Your task to perform on an android device: delete the emails in spam in the gmail app Image 0: 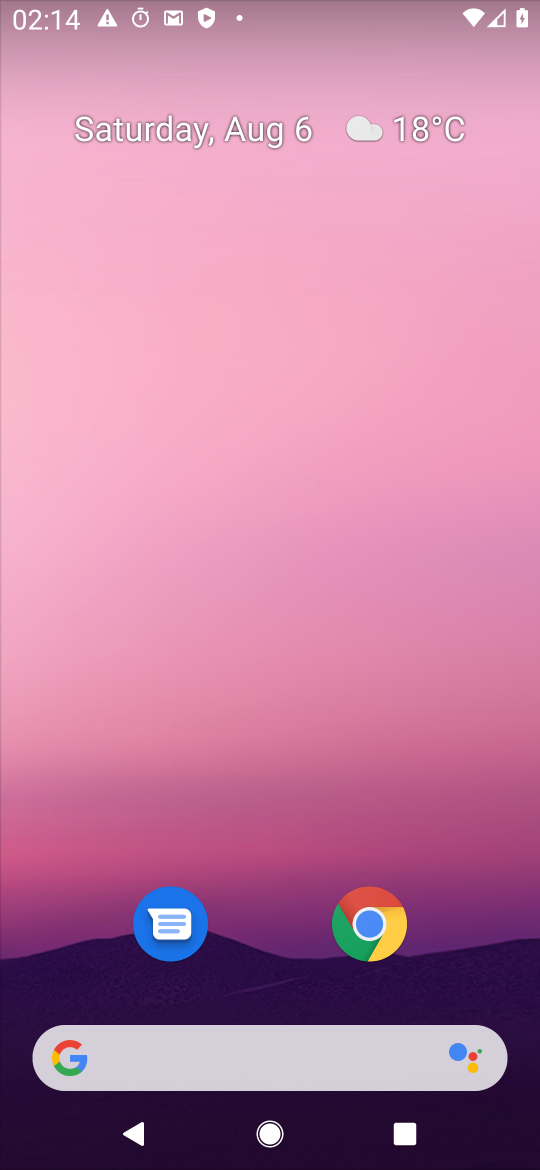
Step 0: drag from (312, 1035) to (432, 39)
Your task to perform on an android device: delete the emails in spam in the gmail app Image 1: 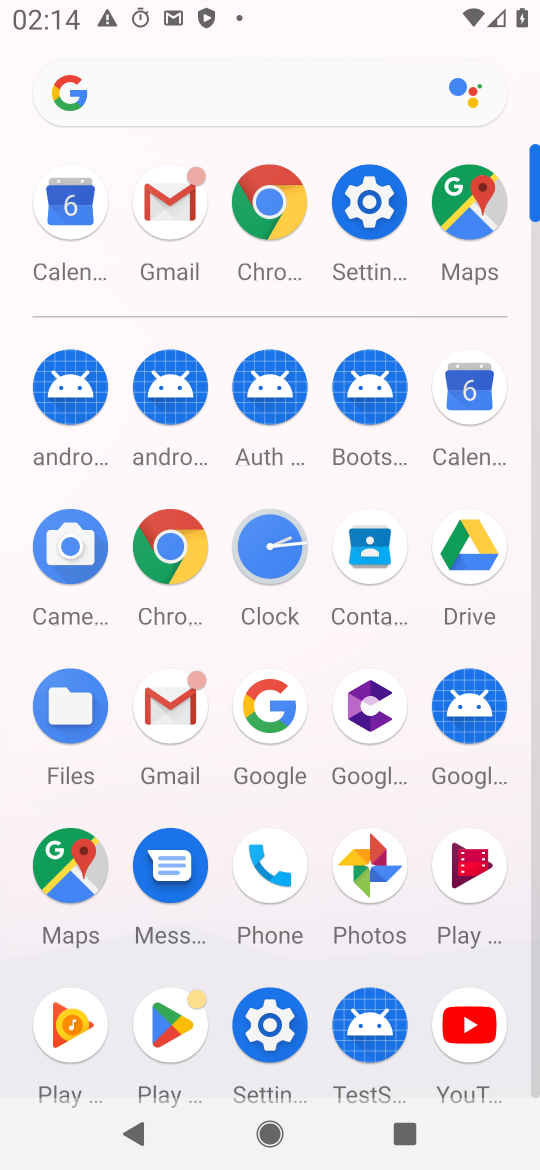
Step 1: click (182, 709)
Your task to perform on an android device: delete the emails in spam in the gmail app Image 2: 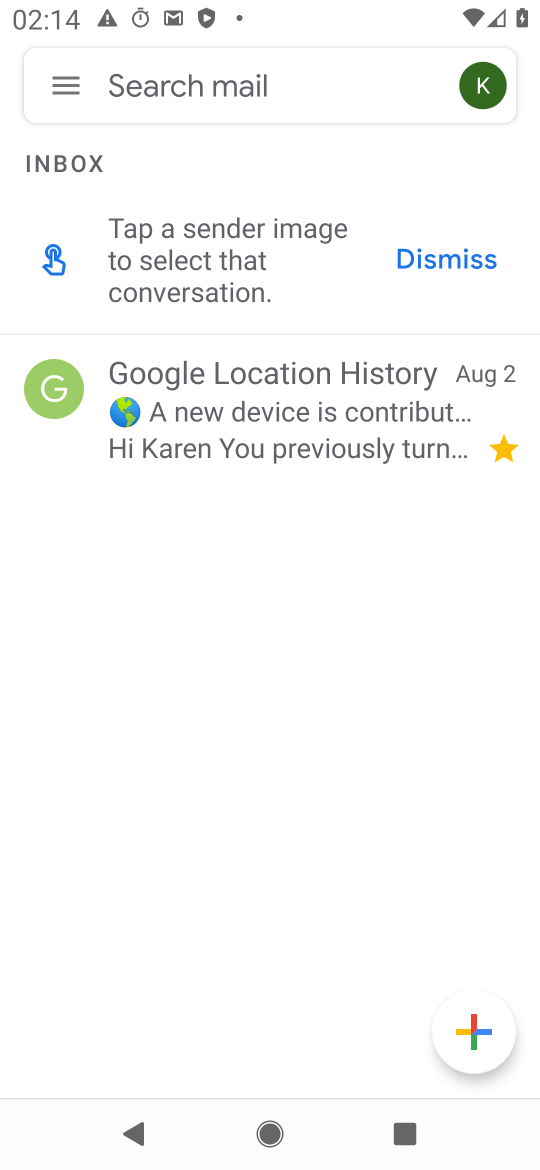
Step 2: click (255, 391)
Your task to perform on an android device: delete the emails in spam in the gmail app Image 3: 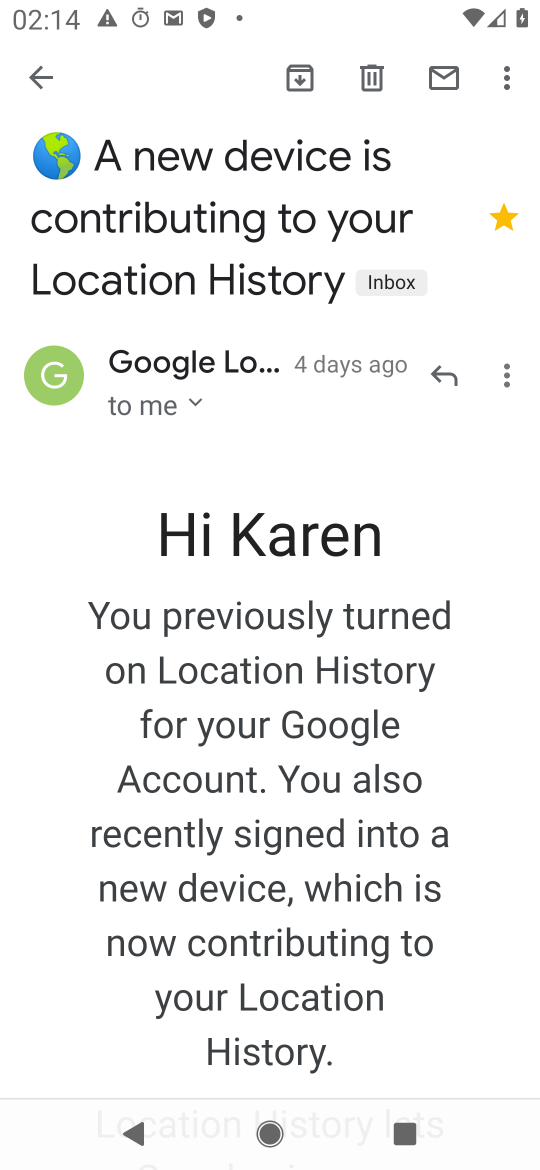
Step 3: press back button
Your task to perform on an android device: delete the emails in spam in the gmail app Image 4: 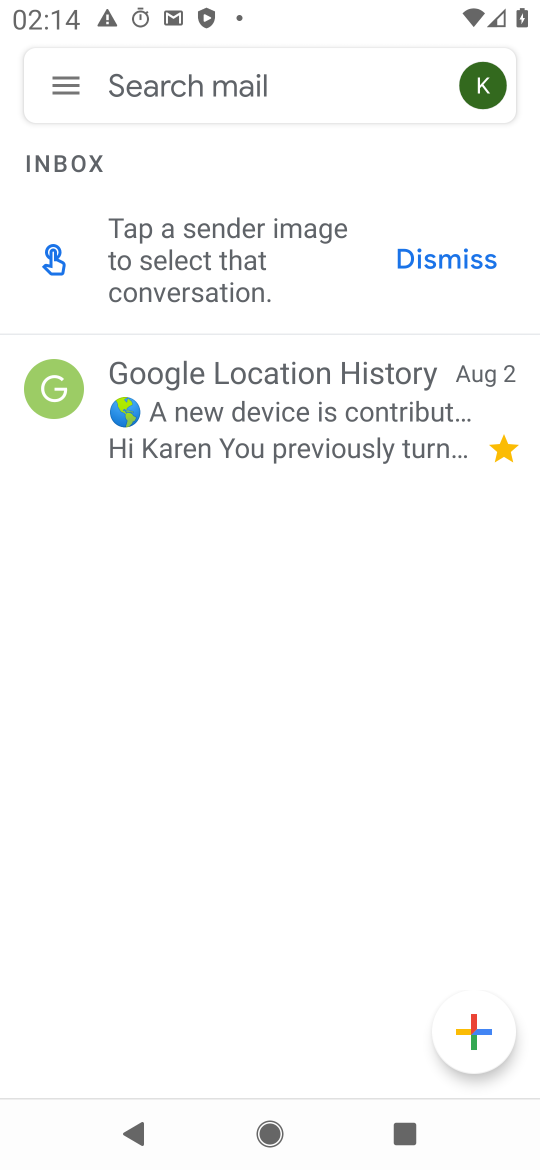
Step 4: click (80, 89)
Your task to perform on an android device: delete the emails in spam in the gmail app Image 5: 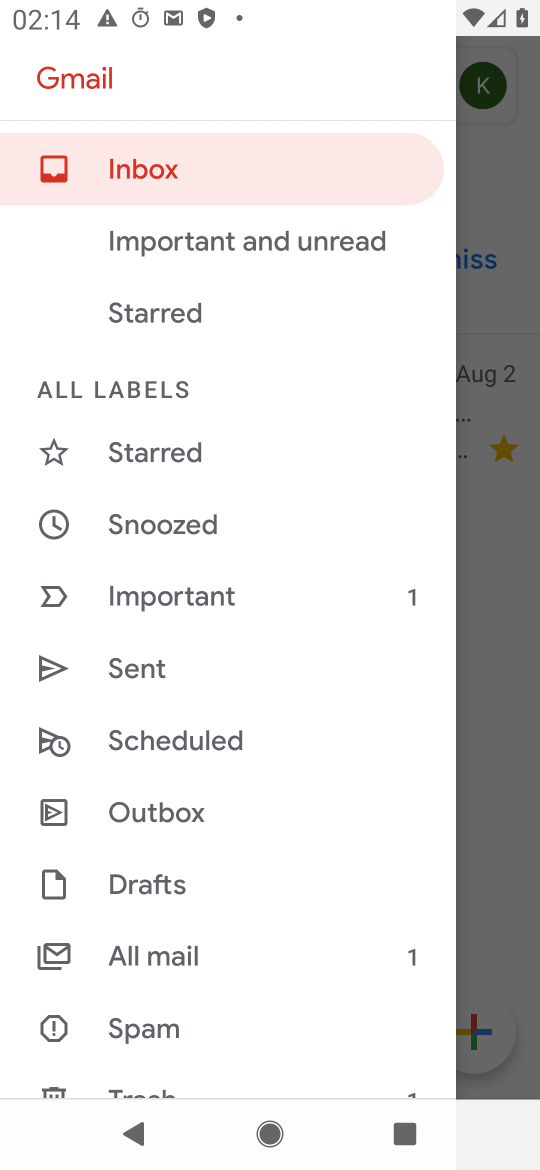
Step 5: click (208, 1035)
Your task to perform on an android device: delete the emails in spam in the gmail app Image 6: 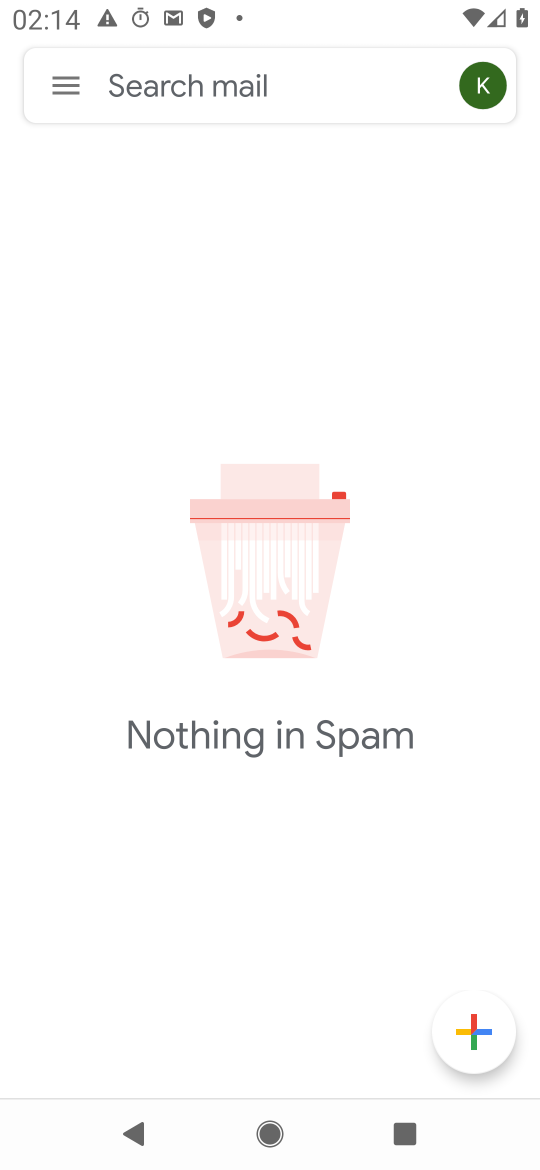
Step 6: task complete